Your task to perform on an android device: Open Youtube and go to "Your channel" Image 0: 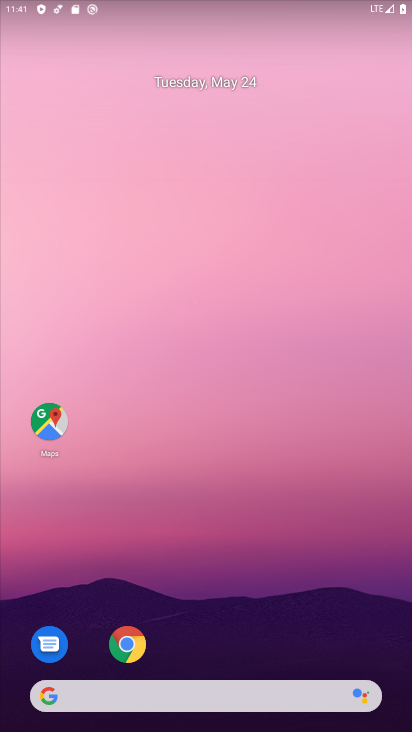
Step 0: drag from (270, 581) to (200, 88)
Your task to perform on an android device: Open Youtube and go to "Your channel" Image 1: 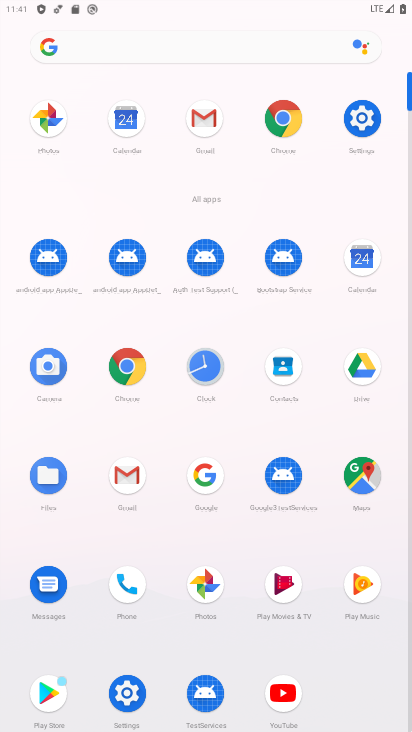
Step 1: click (282, 711)
Your task to perform on an android device: Open Youtube and go to "Your channel" Image 2: 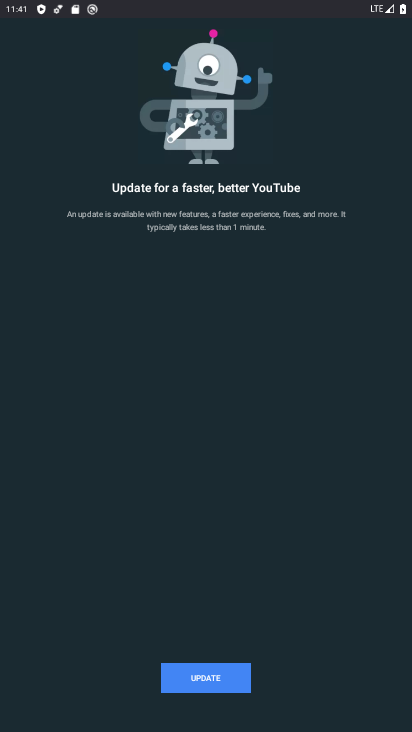
Step 2: click (205, 684)
Your task to perform on an android device: Open Youtube and go to "Your channel" Image 3: 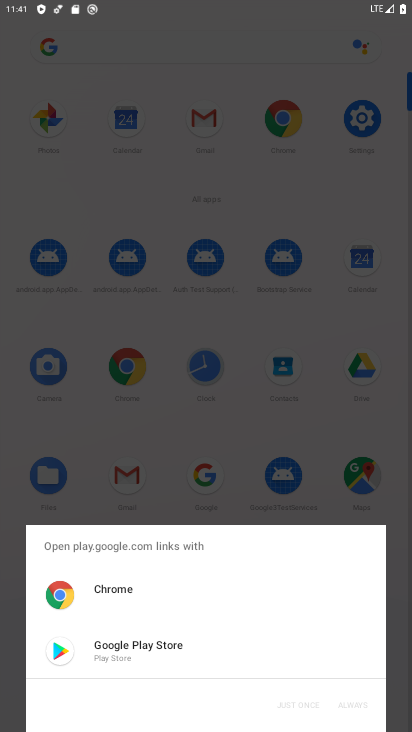
Step 3: click (136, 654)
Your task to perform on an android device: Open Youtube and go to "Your channel" Image 4: 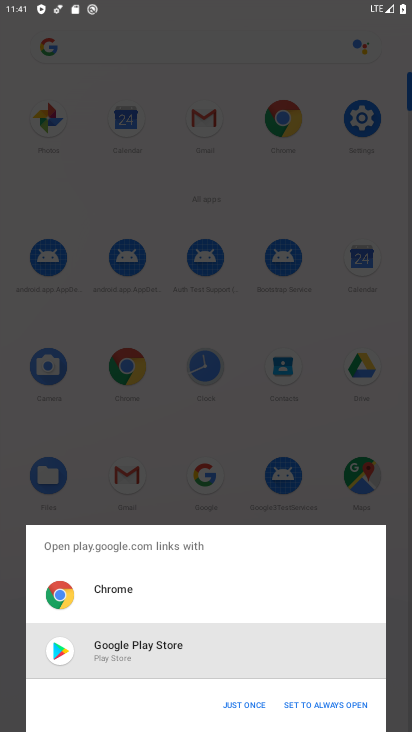
Step 4: click (243, 700)
Your task to perform on an android device: Open Youtube and go to "Your channel" Image 5: 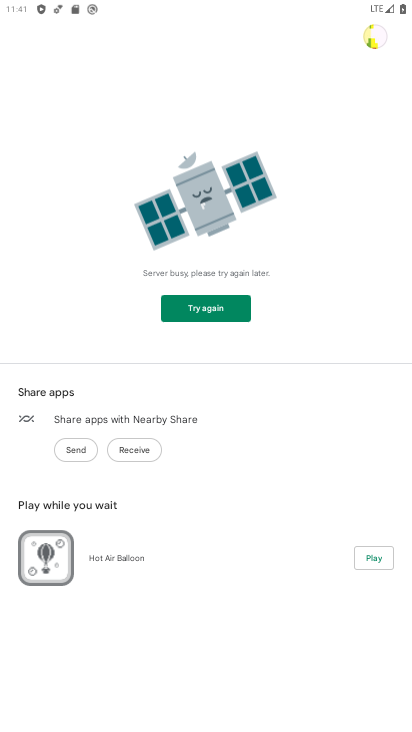
Step 5: click (192, 295)
Your task to perform on an android device: Open Youtube and go to "Your channel" Image 6: 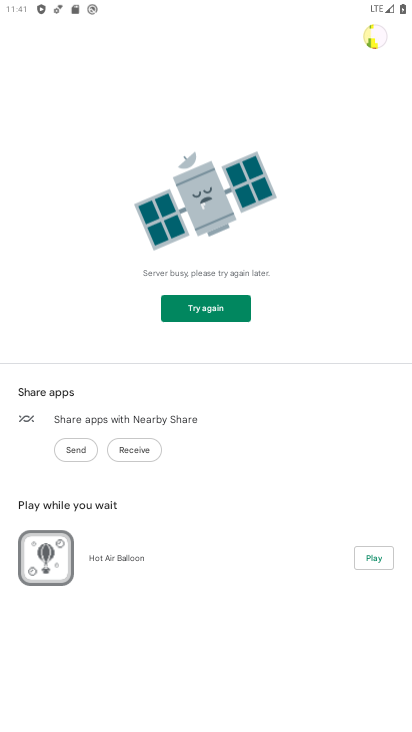
Step 6: click (204, 318)
Your task to perform on an android device: Open Youtube and go to "Your channel" Image 7: 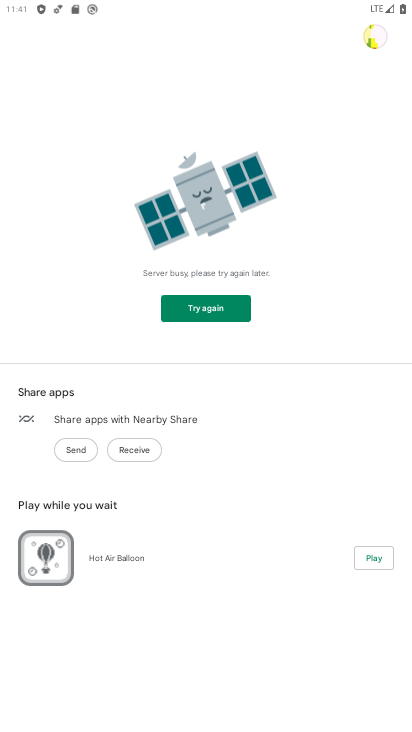
Step 7: click (204, 318)
Your task to perform on an android device: Open Youtube and go to "Your channel" Image 8: 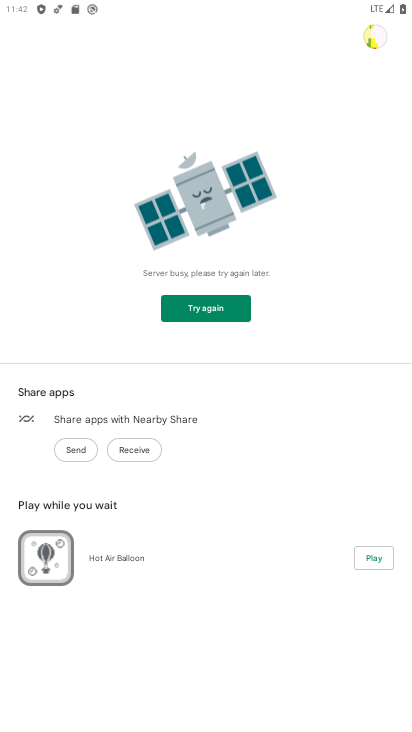
Step 8: click (204, 301)
Your task to perform on an android device: Open Youtube and go to "Your channel" Image 9: 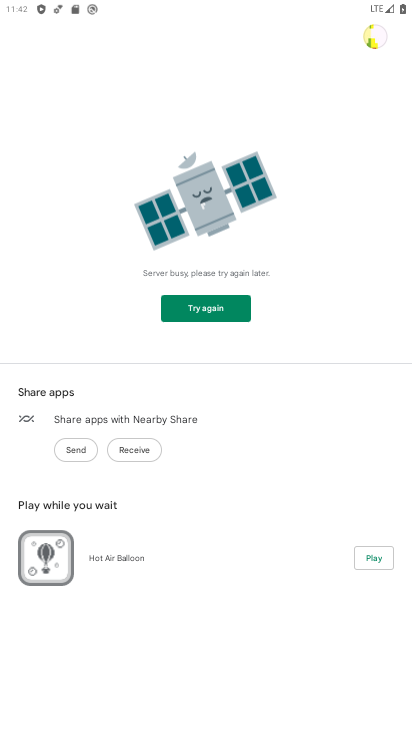
Step 9: task complete